Your task to perform on an android device: manage bookmarks in the chrome app Image 0: 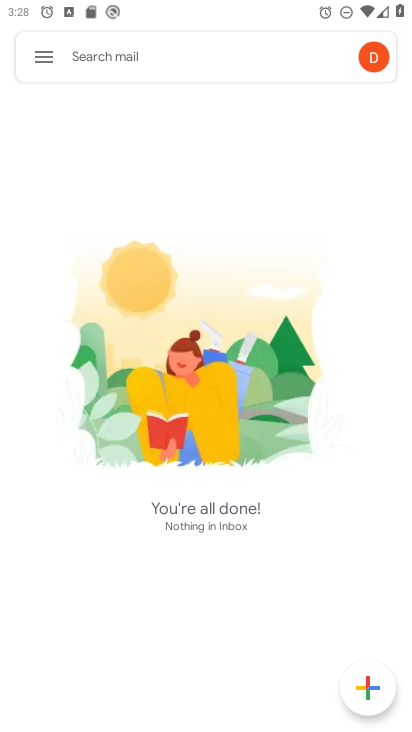
Step 0: press home button
Your task to perform on an android device: manage bookmarks in the chrome app Image 1: 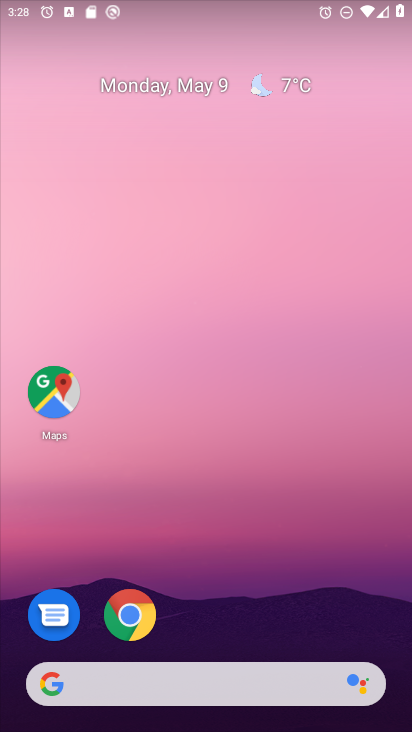
Step 1: click (132, 619)
Your task to perform on an android device: manage bookmarks in the chrome app Image 2: 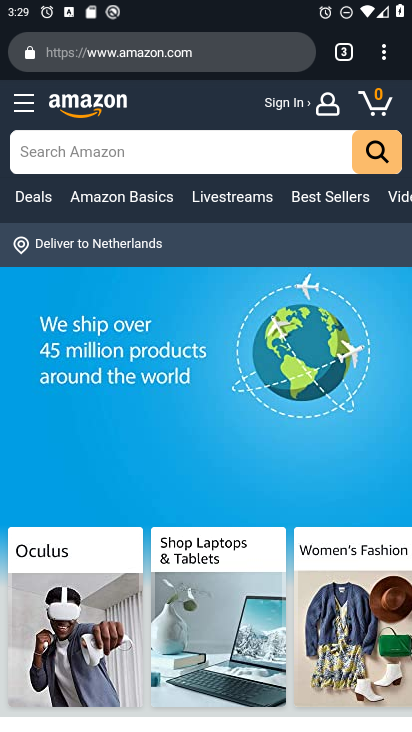
Step 2: click (382, 50)
Your task to perform on an android device: manage bookmarks in the chrome app Image 3: 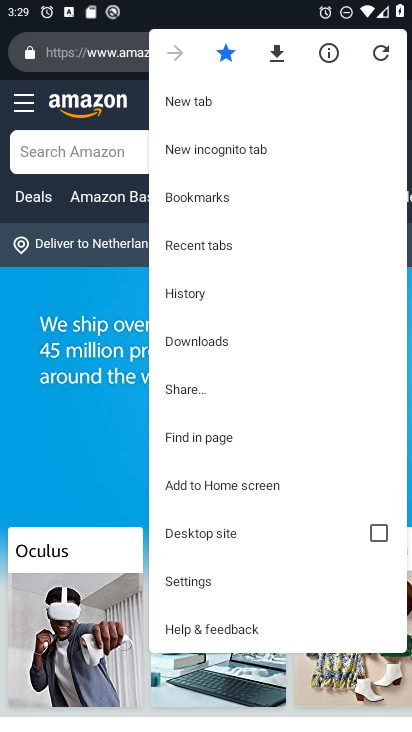
Step 3: click (185, 195)
Your task to perform on an android device: manage bookmarks in the chrome app Image 4: 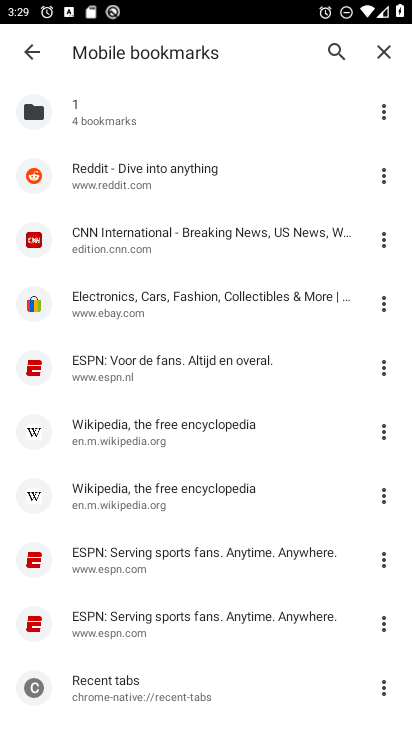
Step 4: click (105, 361)
Your task to perform on an android device: manage bookmarks in the chrome app Image 5: 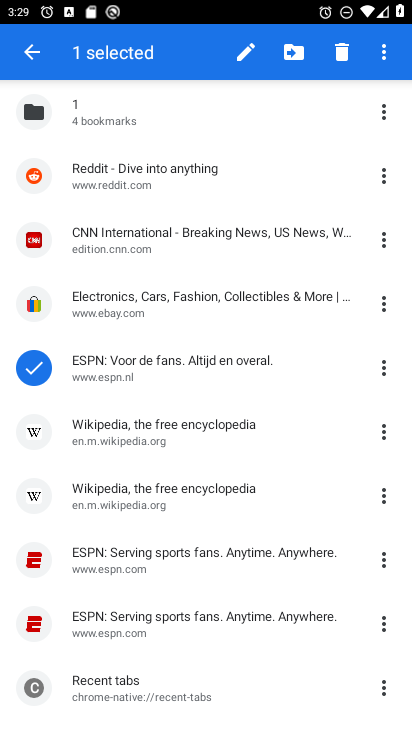
Step 5: click (289, 48)
Your task to perform on an android device: manage bookmarks in the chrome app Image 6: 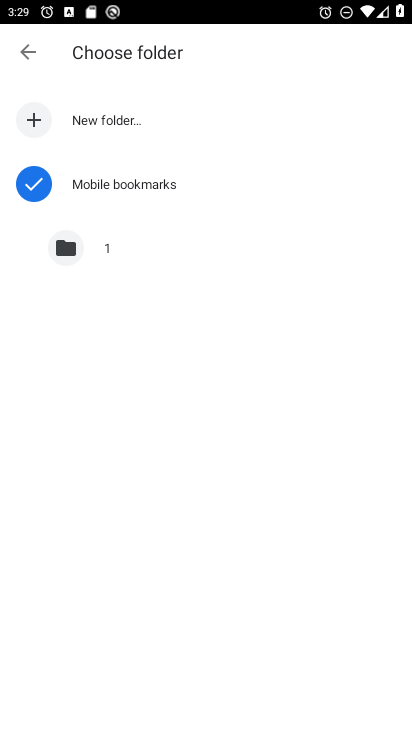
Step 6: click (107, 243)
Your task to perform on an android device: manage bookmarks in the chrome app Image 7: 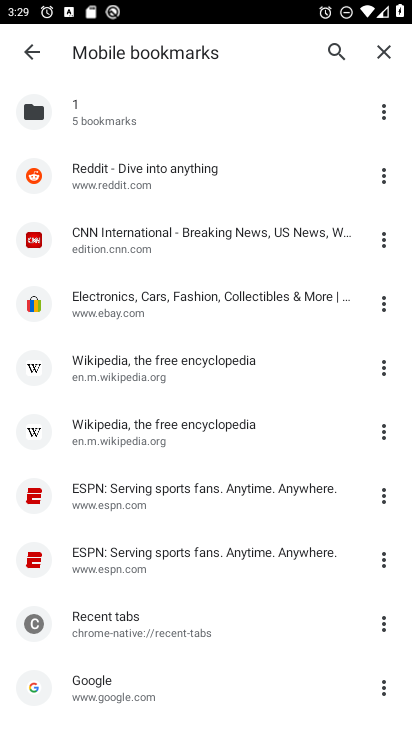
Step 7: task complete